Your task to perform on an android device: Open Google Chrome and open the bookmarks view Image 0: 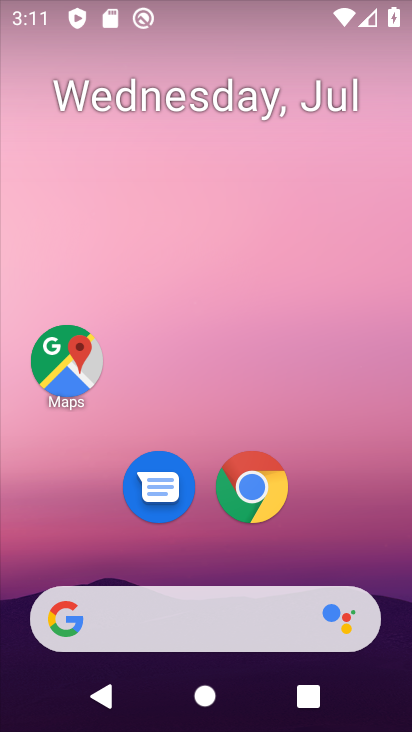
Step 0: click (233, 465)
Your task to perform on an android device: Open Google Chrome and open the bookmarks view Image 1: 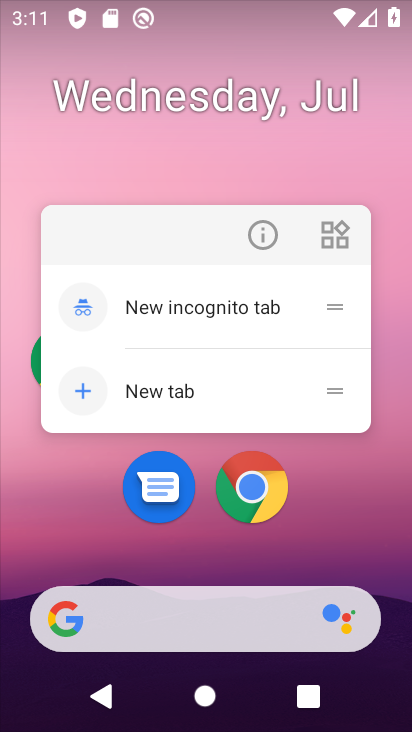
Step 1: click (247, 495)
Your task to perform on an android device: Open Google Chrome and open the bookmarks view Image 2: 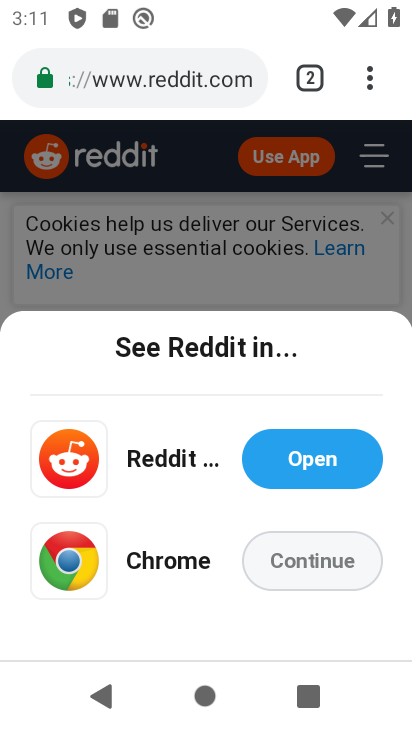
Step 2: task complete